Your task to perform on an android device: find snoozed emails in the gmail app Image 0: 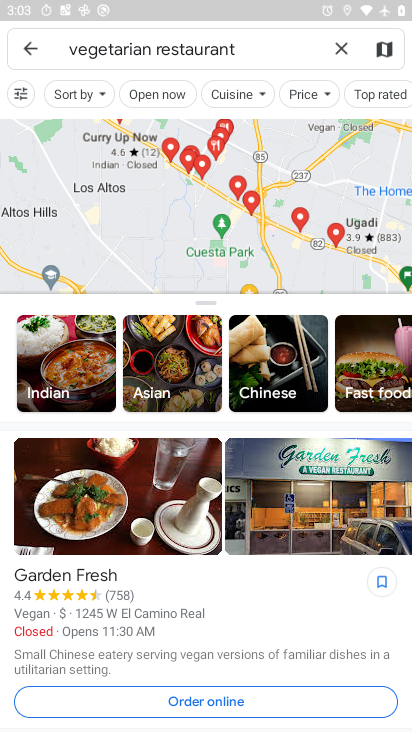
Step 0: press home button
Your task to perform on an android device: find snoozed emails in the gmail app Image 1: 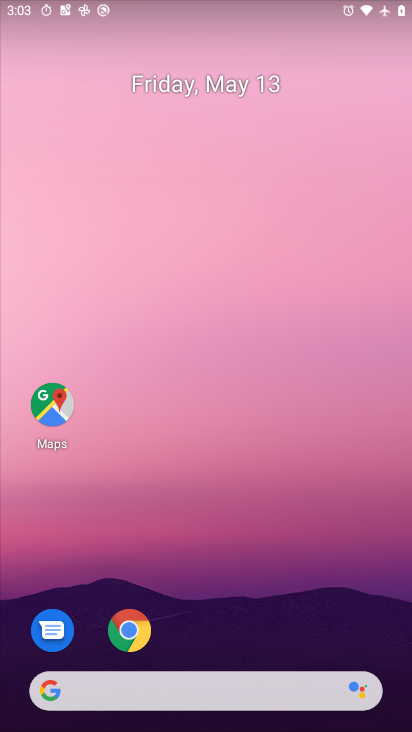
Step 1: drag from (216, 512) to (317, 24)
Your task to perform on an android device: find snoozed emails in the gmail app Image 2: 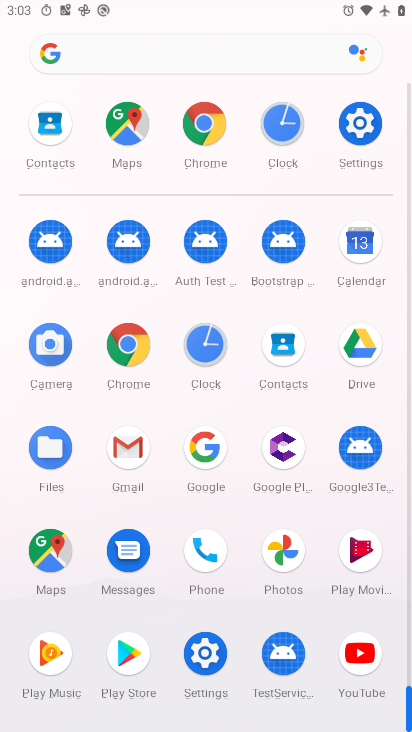
Step 2: click (128, 444)
Your task to perform on an android device: find snoozed emails in the gmail app Image 3: 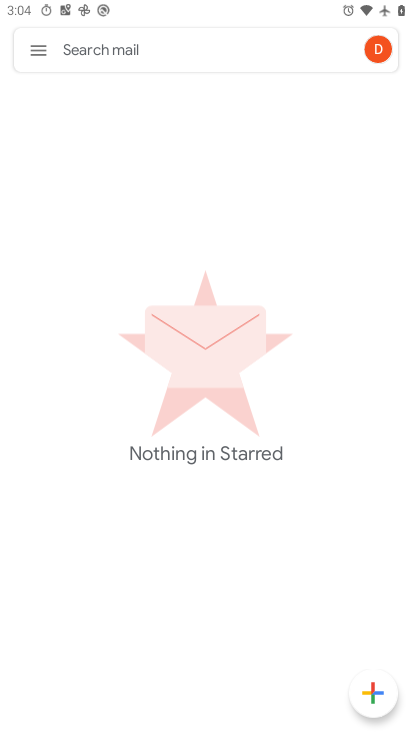
Step 3: click (41, 60)
Your task to perform on an android device: find snoozed emails in the gmail app Image 4: 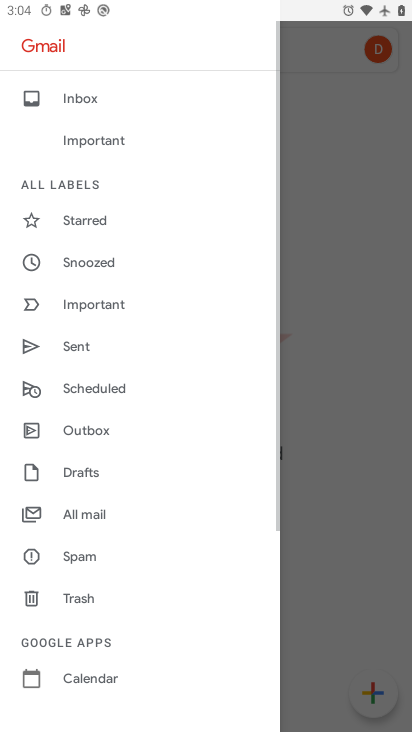
Step 4: click (116, 265)
Your task to perform on an android device: find snoozed emails in the gmail app Image 5: 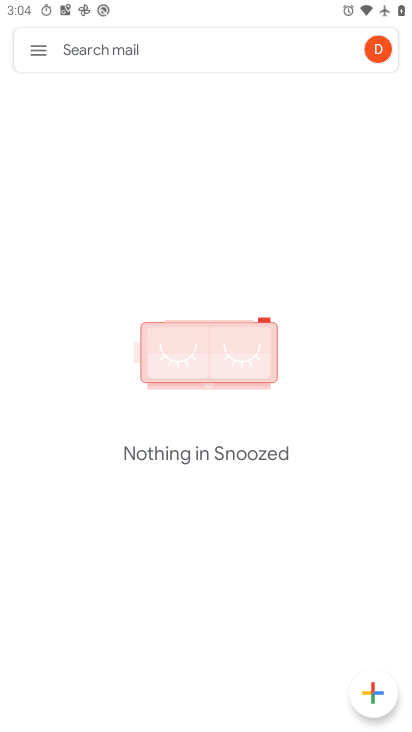
Step 5: task complete